Your task to perform on an android device: set the timer Image 0: 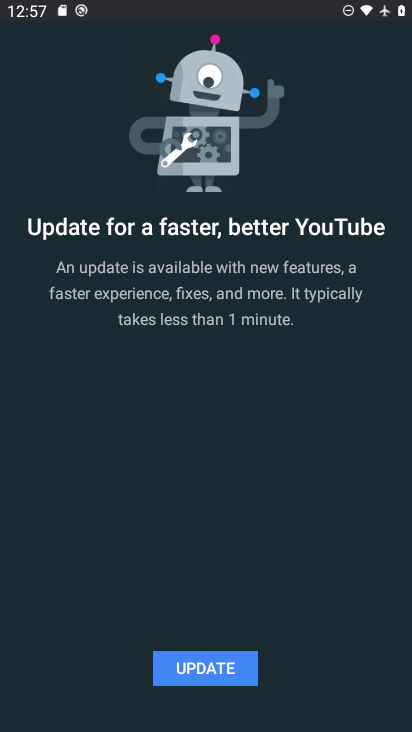
Step 0: press back button
Your task to perform on an android device: set the timer Image 1: 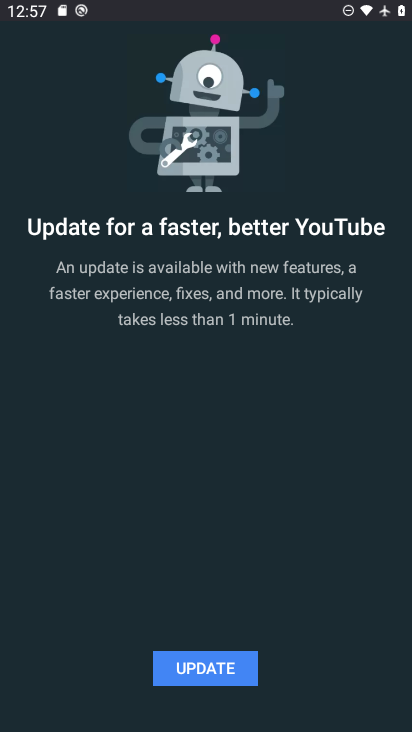
Step 1: press back button
Your task to perform on an android device: set the timer Image 2: 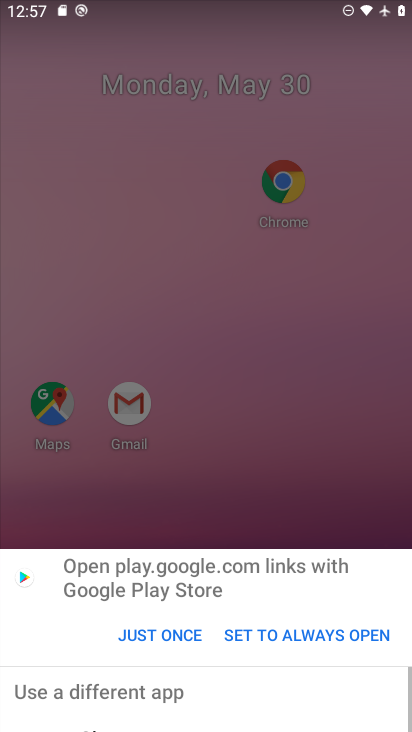
Step 2: press back button
Your task to perform on an android device: set the timer Image 3: 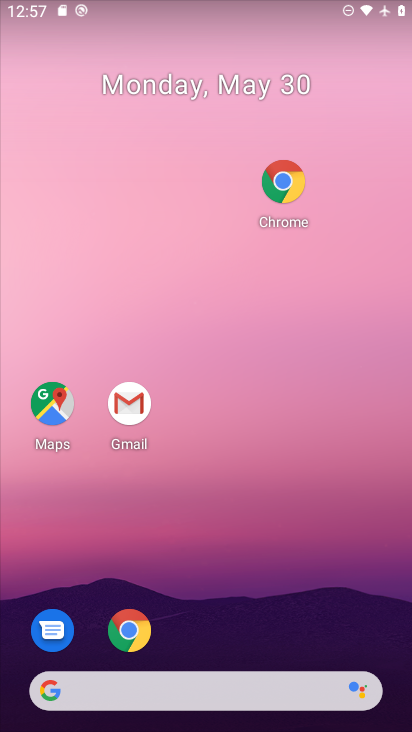
Step 3: drag from (269, 702) to (181, 176)
Your task to perform on an android device: set the timer Image 4: 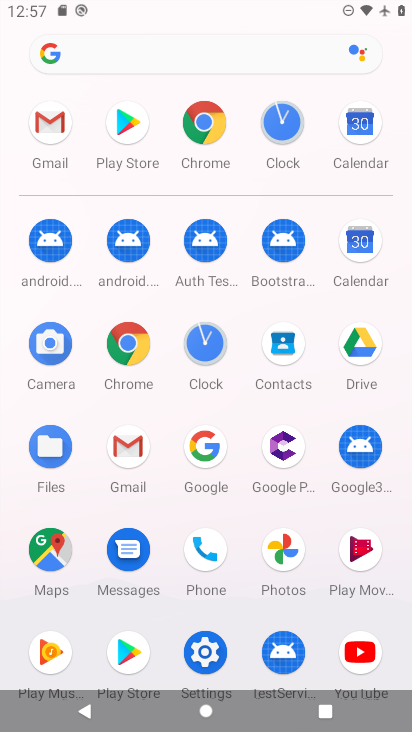
Step 4: click (210, 349)
Your task to perform on an android device: set the timer Image 5: 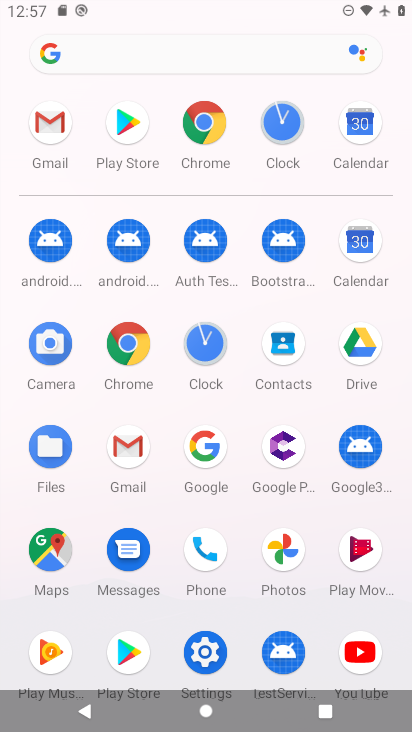
Step 5: click (216, 342)
Your task to perform on an android device: set the timer Image 6: 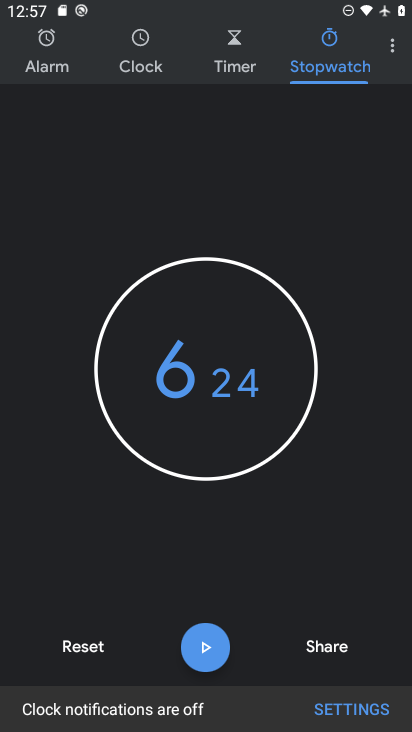
Step 6: click (223, 56)
Your task to perform on an android device: set the timer Image 7: 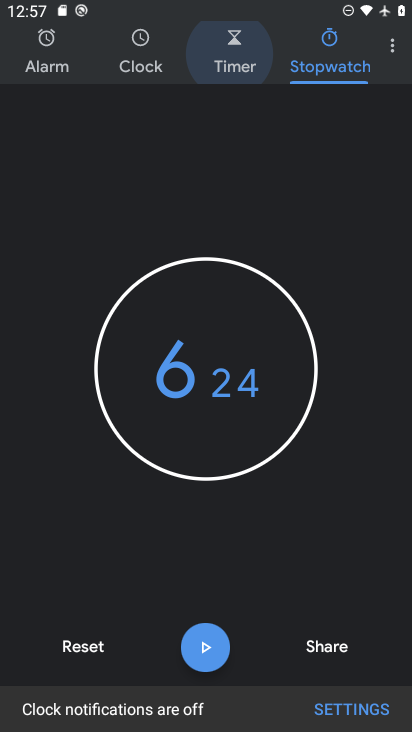
Step 7: click (229, 54)
Your task to perform on an android device: set the timer Image 8: 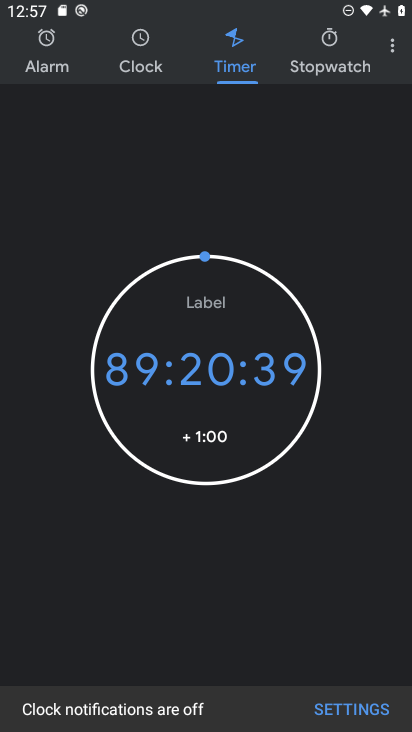
Step 8: click (229, 54)
Your task to perform on an android device: set the timer Image 9: 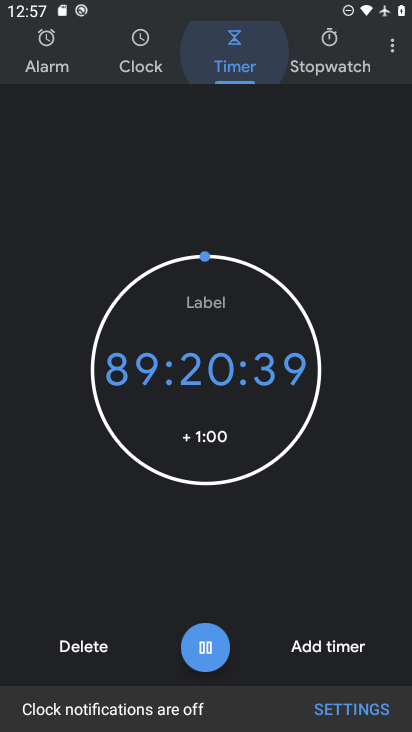
Step 9: click (229, 54)
Your task to perform on an android device: set the timer Image 10: 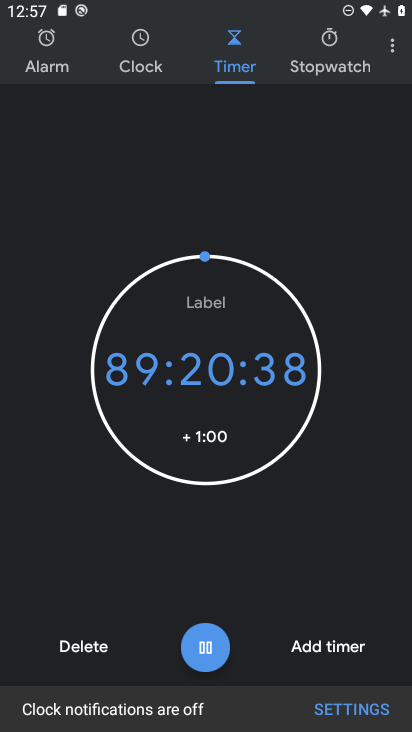
Step 10: click (229, 54)
Your task to perform on an android device: set the timer Image 11: 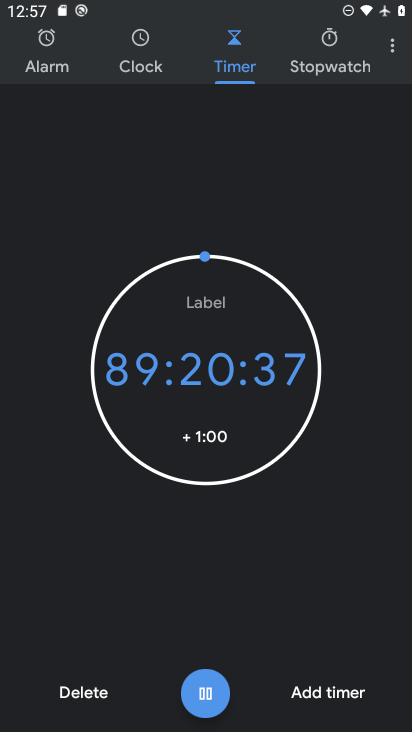
Step 11: click (206, 701)
Your task to perform on an android device: set the timer Image 12: 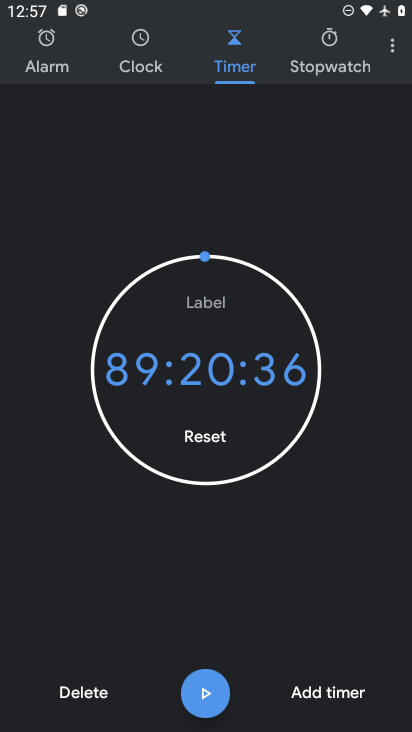
Step 12: click (204, 671)
Your task to perform on an android device: set the timer Image 13: 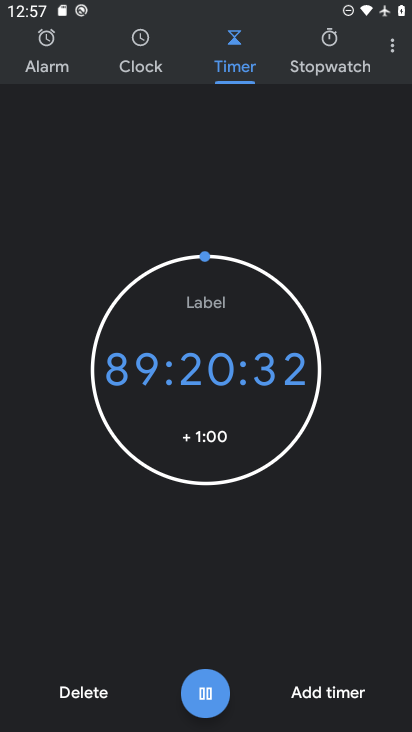
Step 13: click (209, 689)
Your task to perform on an android device: set the timer Image 14: 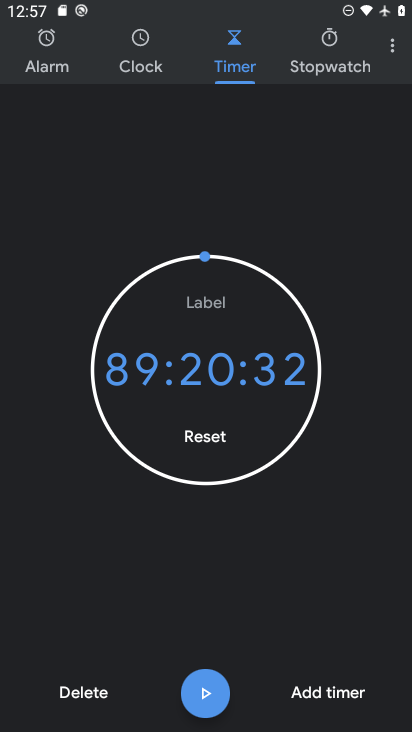
Step 14: task complete